Your task to perform on an android device: Check the news Image 0: 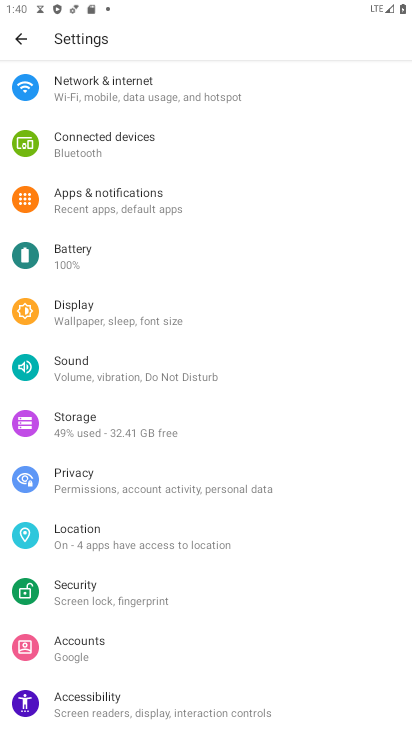
Step 0: press home button
Your task to perform on an android device: Check the news Image 1: 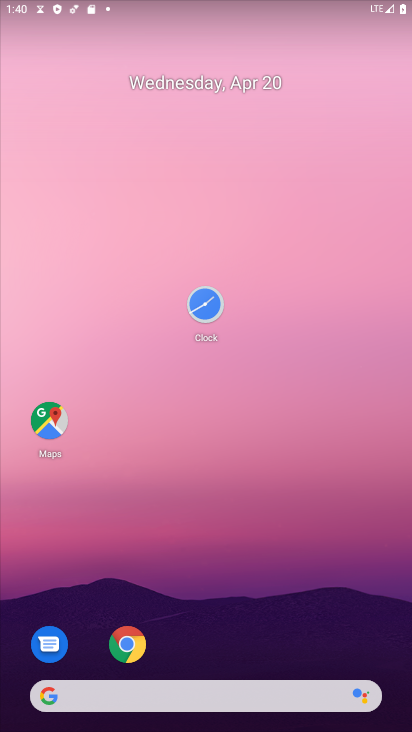
Step 1: drag from (254, 622) to (238, 22)
Your task to perform on an android device: Check the news Image 2: 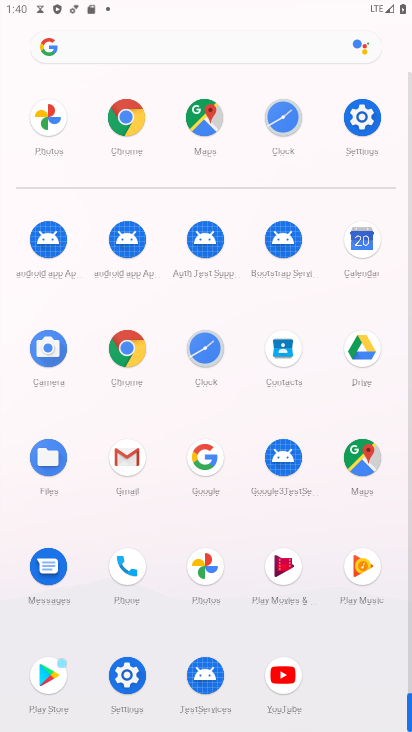
Step 2: click (118, 357)
Your task to perform on an android device: Check the news Image 3: 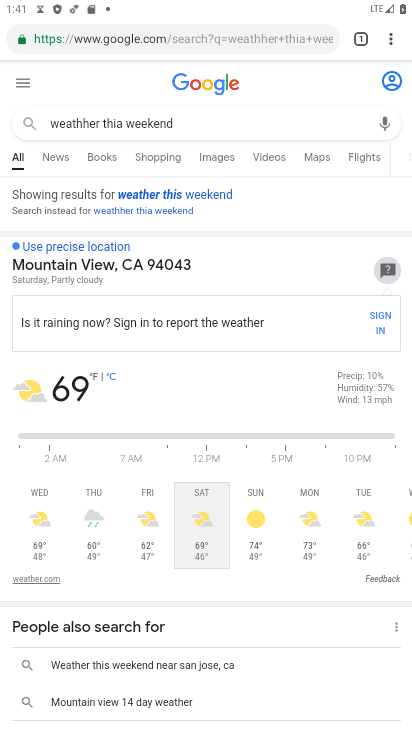
Step 3: click (321, 35)
Your task to perform on an android device: Check the news Image 4: 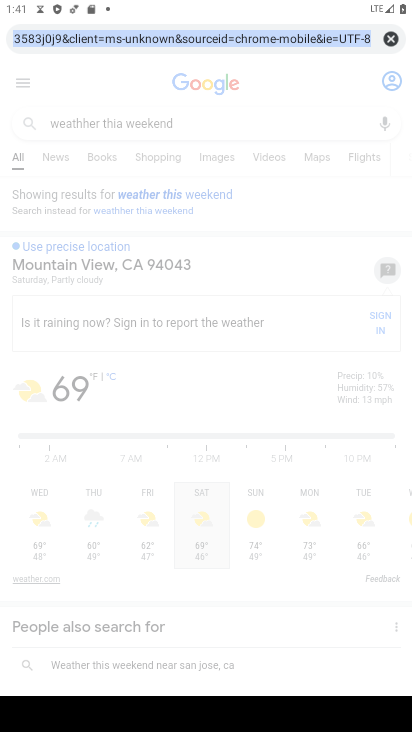
Step 4: click (393, 40)
Your task to perform on an android device: Check the news Image 5: 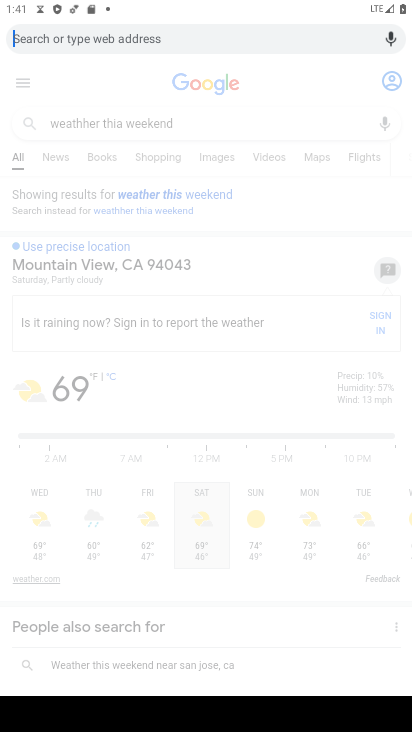
Step 5: type "check the news"
Your task to perform on an android device: Check the news Image 6: 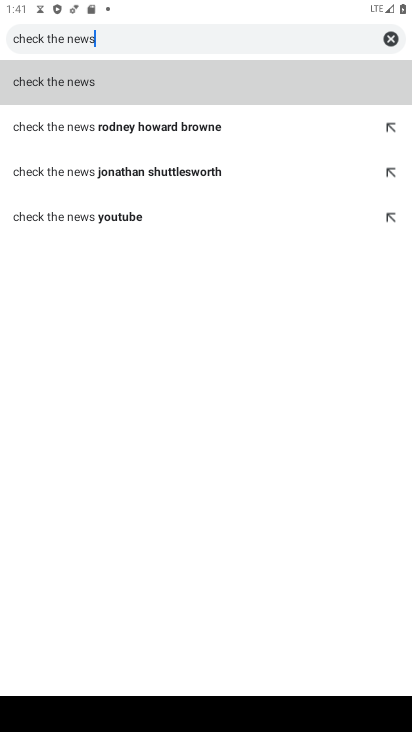
Step 6: click (141, 96)
Your task to perform on an android device: Check the news Image 7: 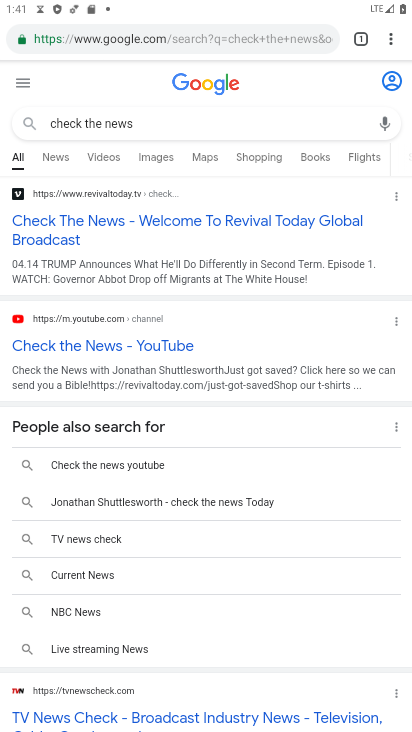
Step 7: task complete